Your task to perform on an android device: open app "File Manager" Image 0: 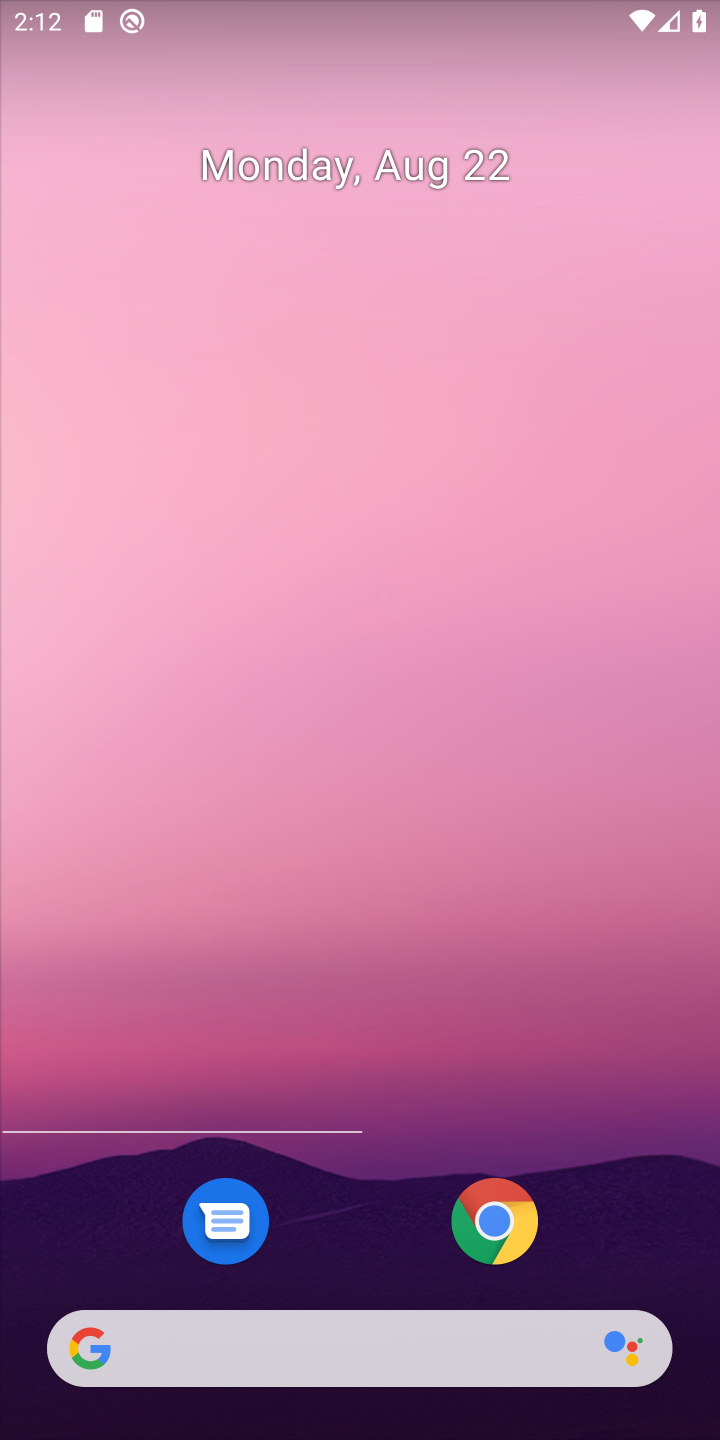
Step 0: press home button
Your task to perform on an android device: open app "File Manager" Image 1: 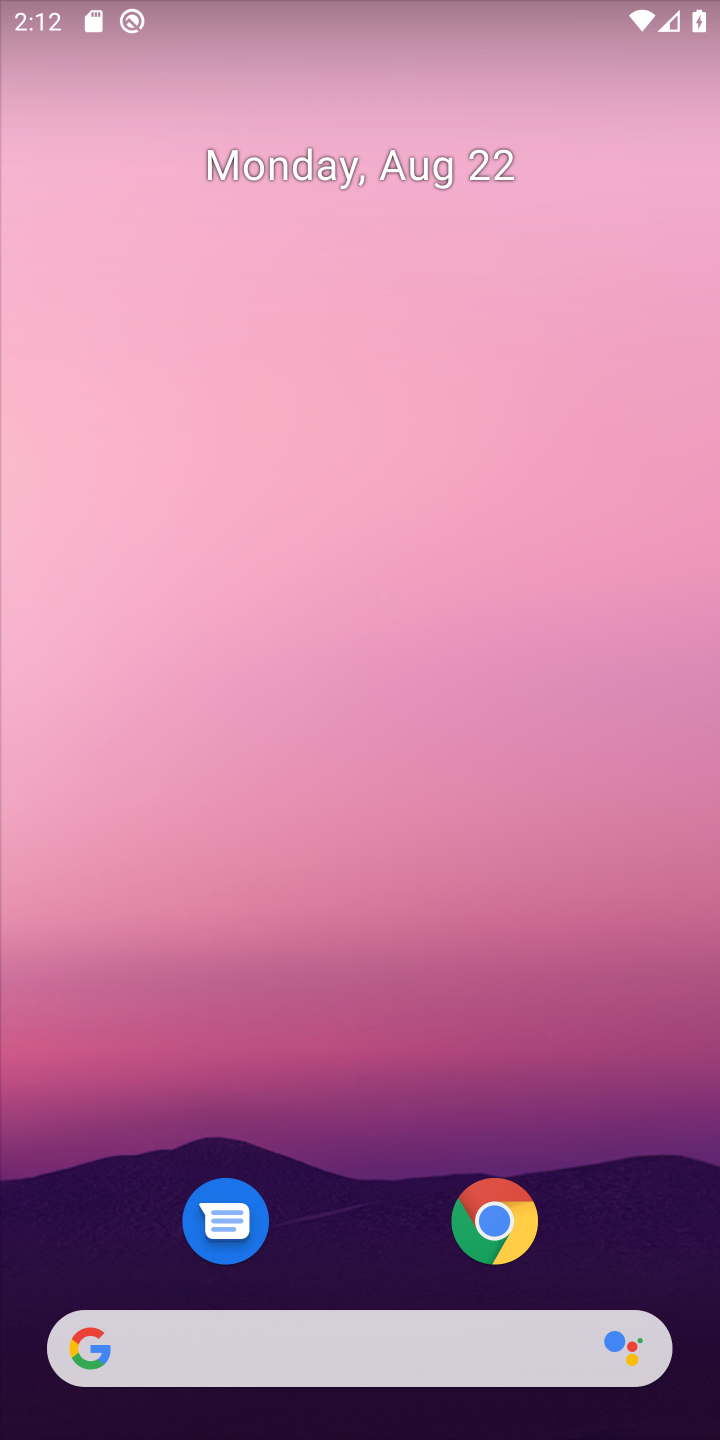
Step 1: drag from (392, 1264) to (376, 47)
Your task to perform on an android device: open app "File Manager" Image 2: 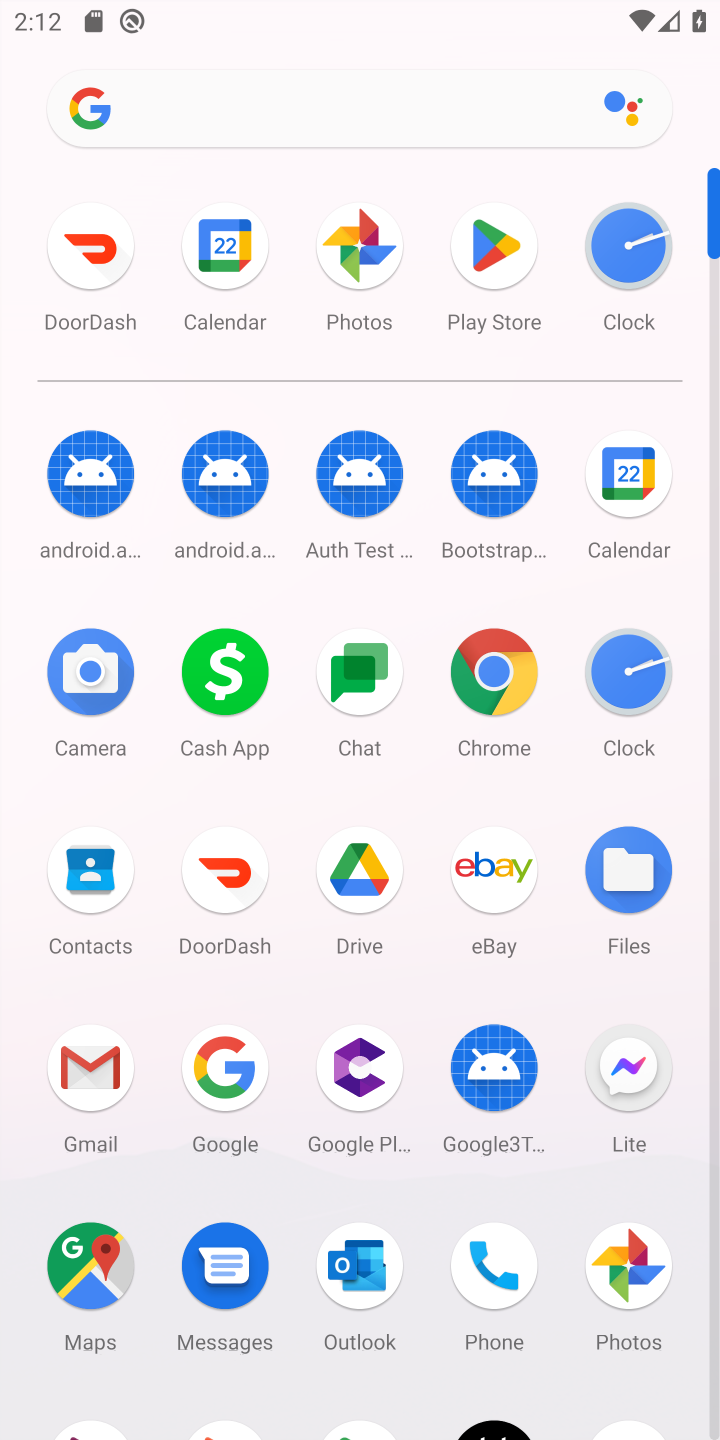
Step 2: click (478, 228)
Your task to perform on an android device: open app "File Manager" Image 3: 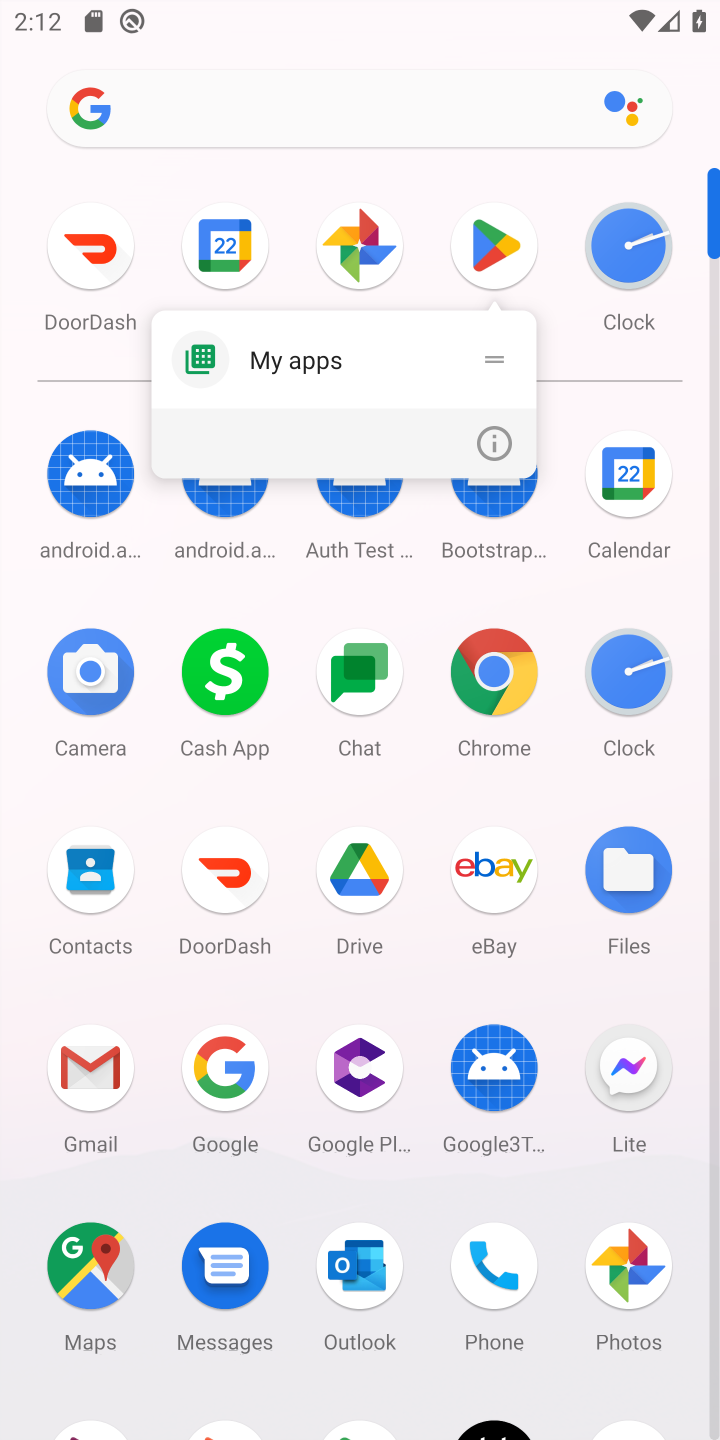
Step 3: click (495, 238)
Your task to perform on an android device: open app "File Manager" Image 4: 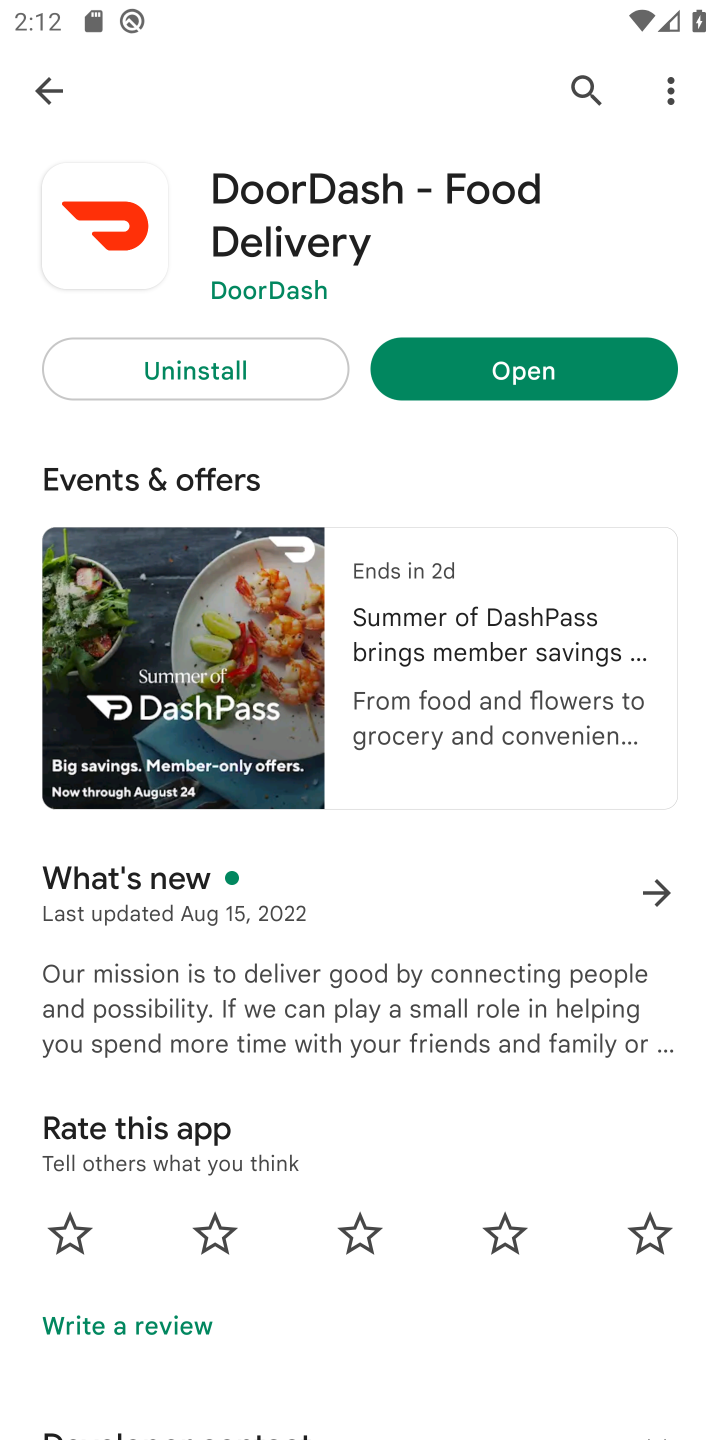
Step 4: click (580, 88)
Your task to perform on an android device: open app "File Manager" Image 5: 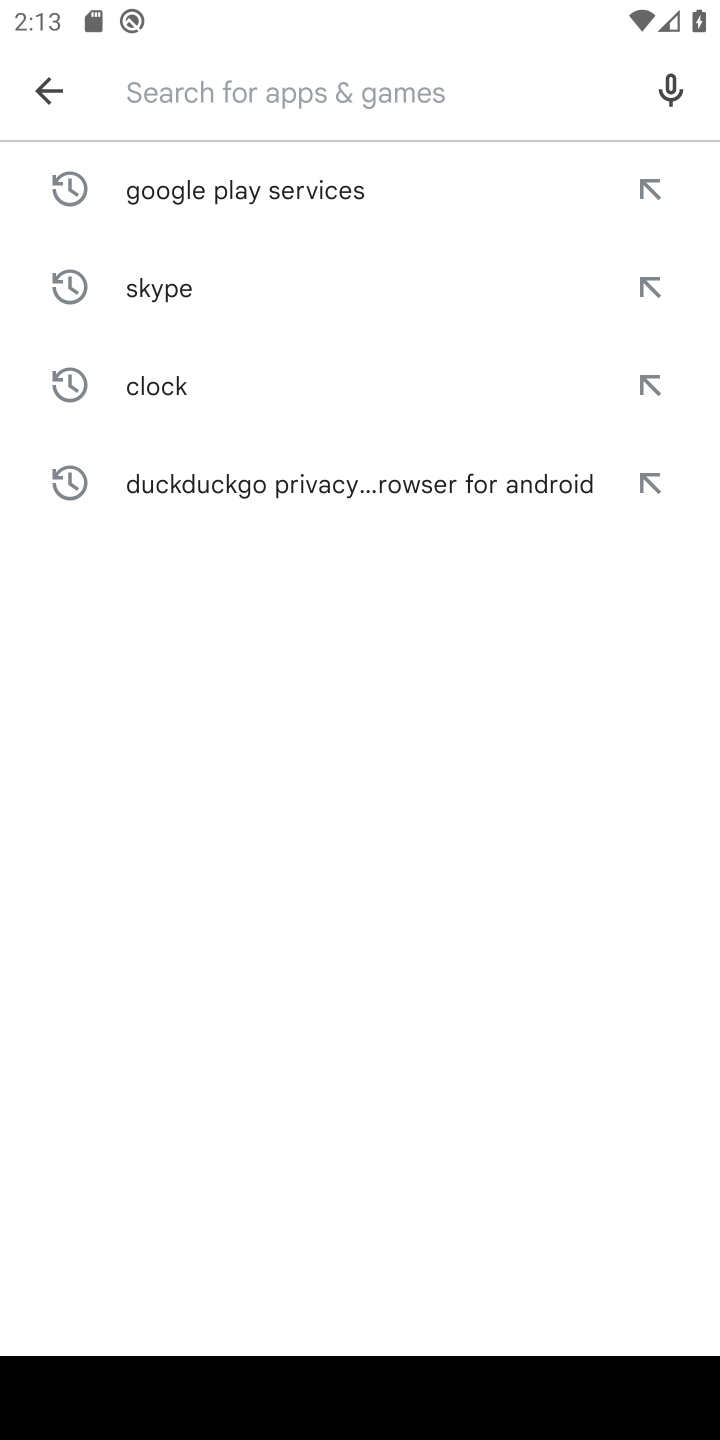
Step 5: type "File Manager"
Your task to perform on an android device: open app "File Manager" Image 6: 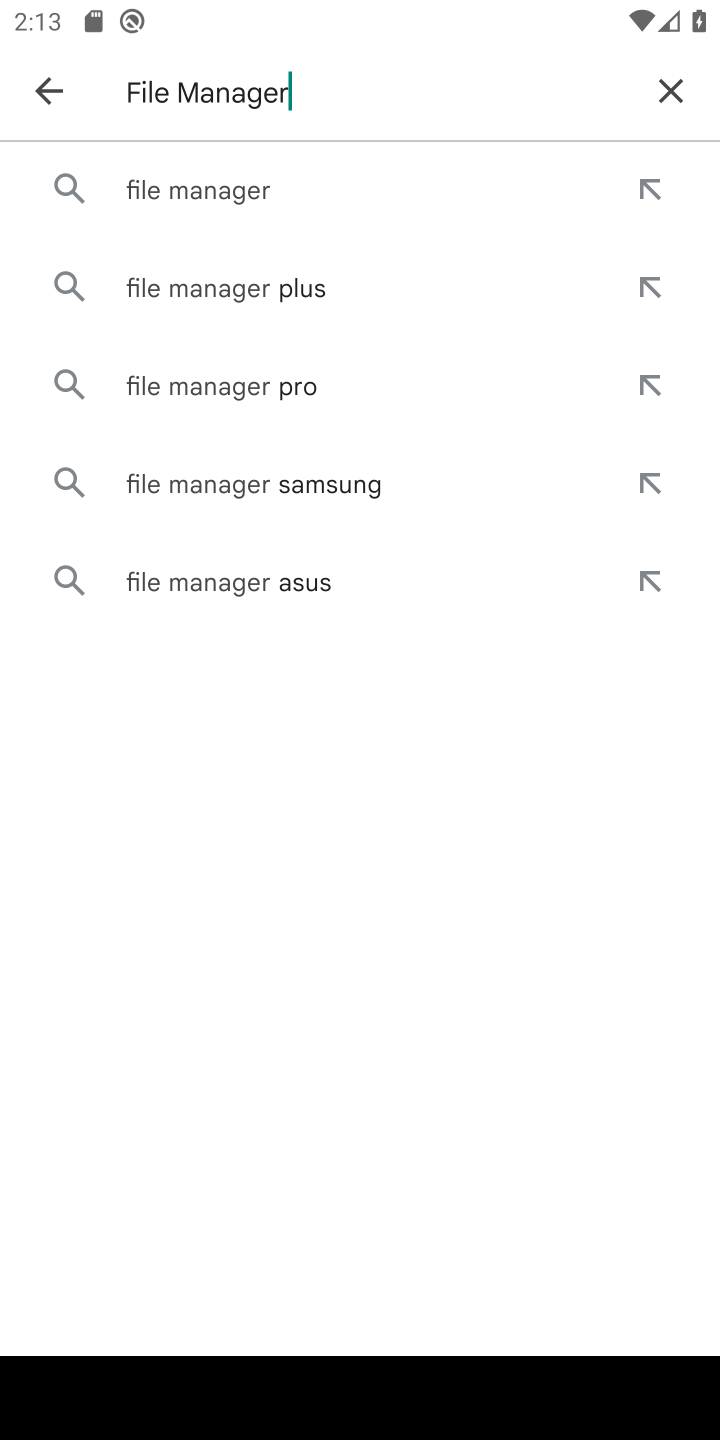
Step 6: click (216, 184)
Your task to perform on an android device: open app "File Manager" Image 7: 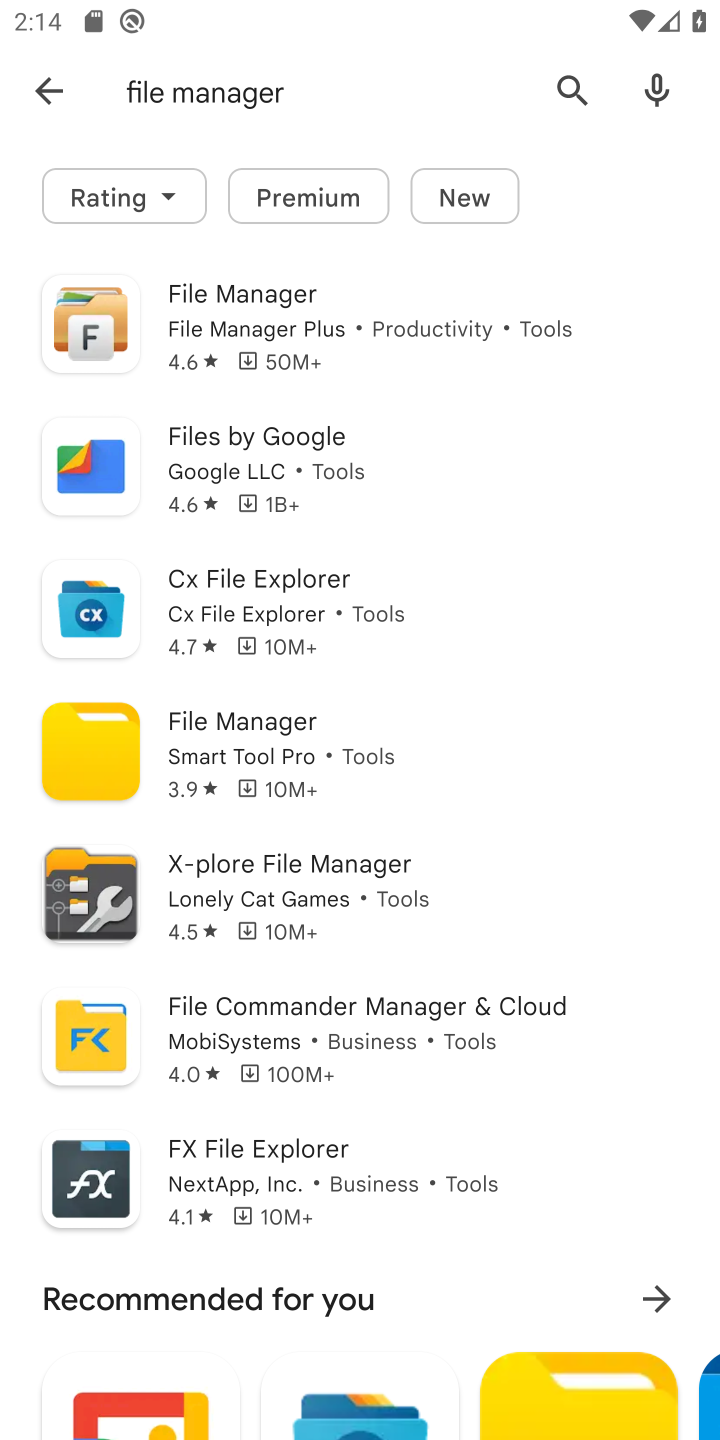
Step 7: task complete